Your task to perform on an android device: Open calendar and show me the second week of next month Image 0: 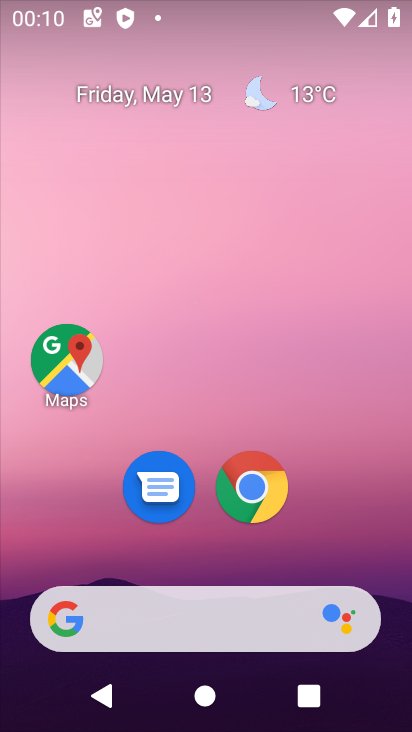
Step 0: click (180, 93)
Your task to perform on an android device: Open calendar and show me the second week of next month Image 1: 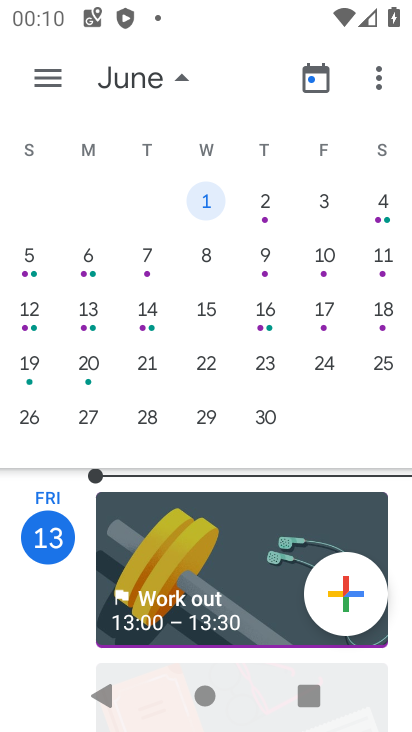
Step 1: click (211, 264)
Your task to perform on an android device: Open calendar and show me the second week of next month Image 2: 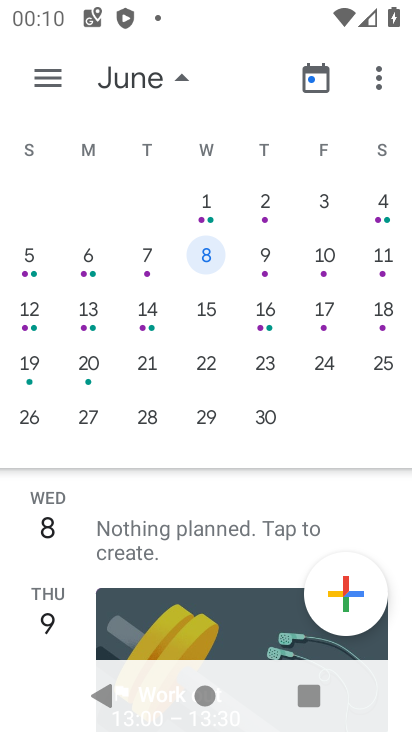
Step 2: task complete